Your task to perform on an android device: Toggle the flashlight Image 0: 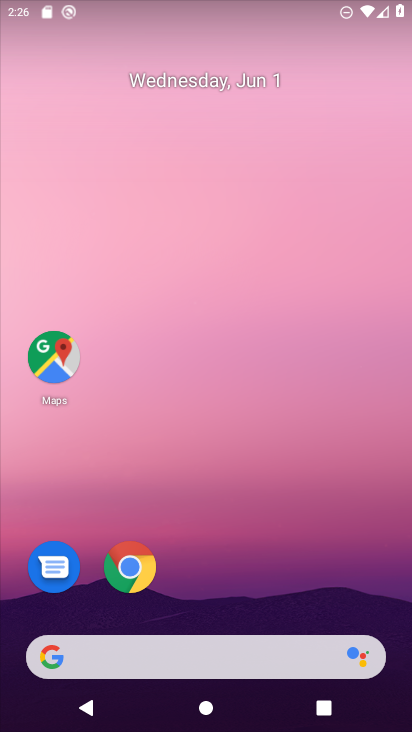
Step 0: drag from (304, 11) to (280, 675)
Your task to perform on an android device: Toggle the flashlight Image 1: 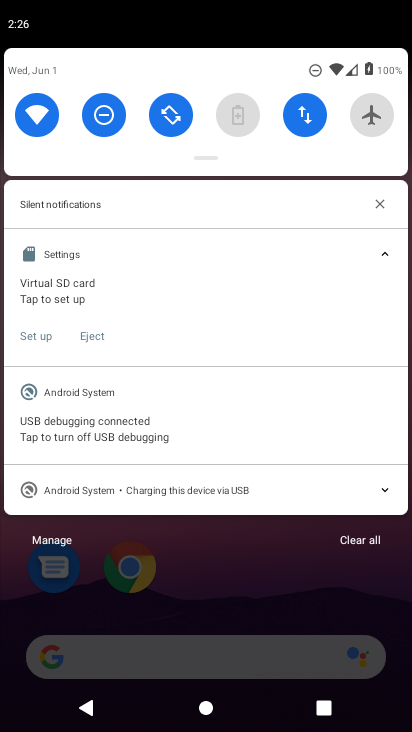
Step 1: task complete